Your task to perform on an android device: turn off improve location accuracy Image 0: 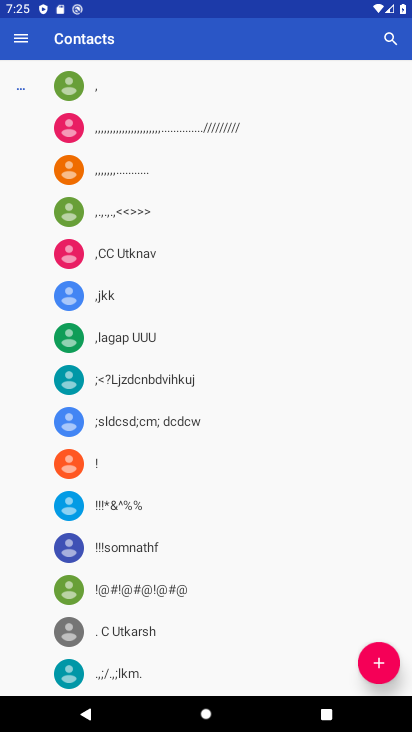
Step 0: press home button
Your task to perform on an android device: turn off improve location accuracy Image 1: 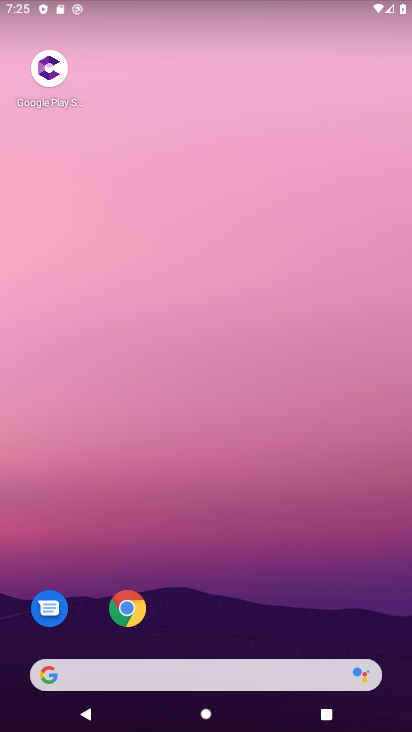
Step 1: drag from (247, 575) to (244, 58)
Your task to perform on an android device: turn off improve location accuracy Image 2: 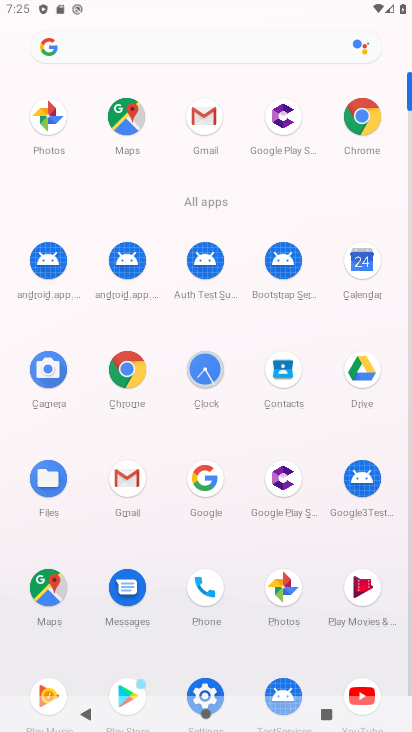
Step 2: drag from (240, 622) to (250, 485)
Your task to perform on an android device: turn off improve location accuracy Image 3: 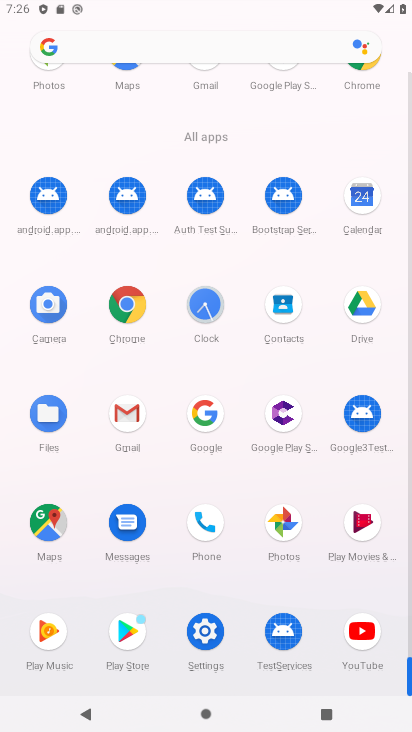
Step 3: click (214, 634)
Your task to perform on an android device: turn off improve location accuracy Image 4: 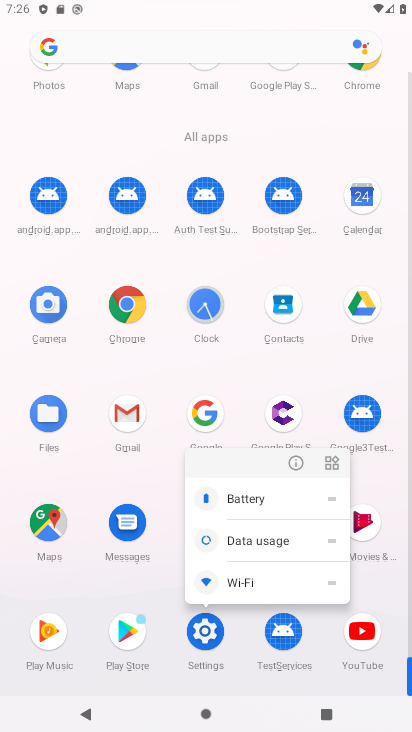
Step 4: click (214, 634)
Your task to perform on an android device: turn off improve location accuracy Image 5: 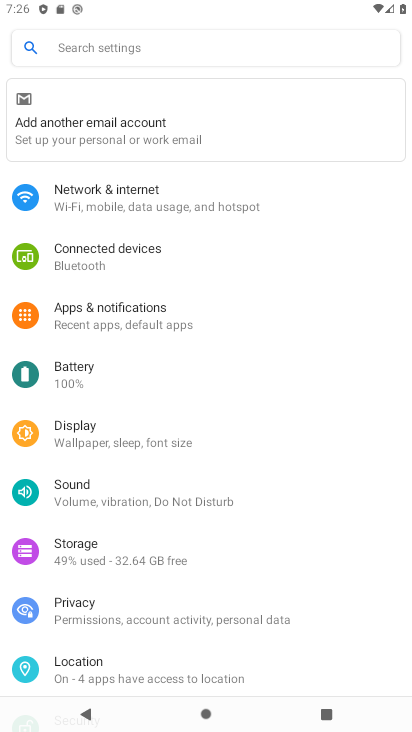
Step 5: click (170, 670)
Your task to perform on an android device: turn off improve location accuracy Image 6: 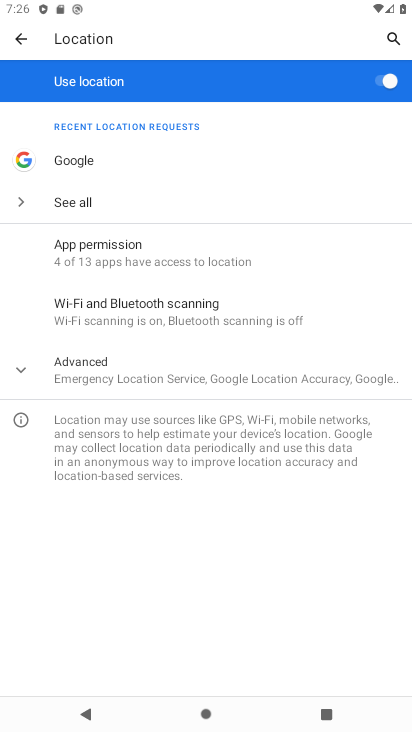
Step 6: click (118, 243)
Your task to perform on an android device: turn off improve location accuracy Image 7: 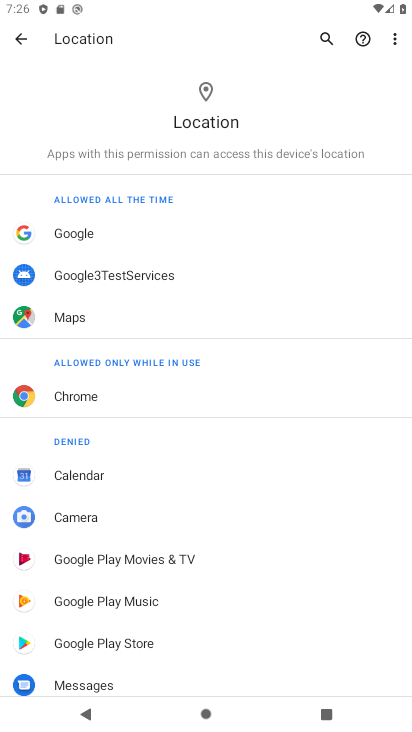
Step 7: drag from (220, 610) to (252, 156)
Your task to perform on an android device: turn off improve location accuracy Image 8: 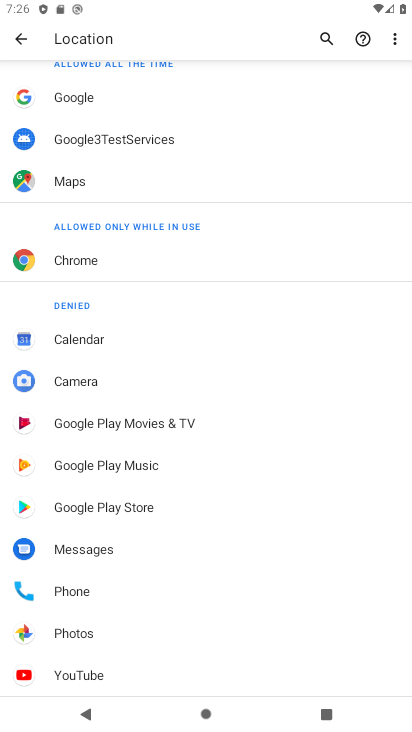
Step 8: click (19, 35)
Your task to perform on an android device: turn off improve location accuracy Image 9: 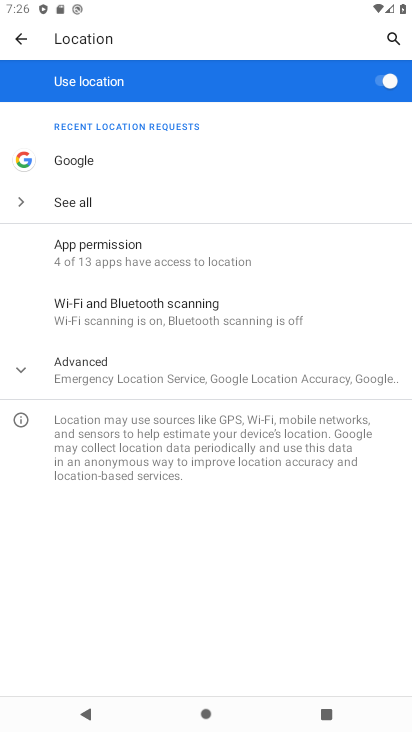
Step 9: click (23, 368)
Your task to perform on an android device: turn off improve location accuracy Image 10: 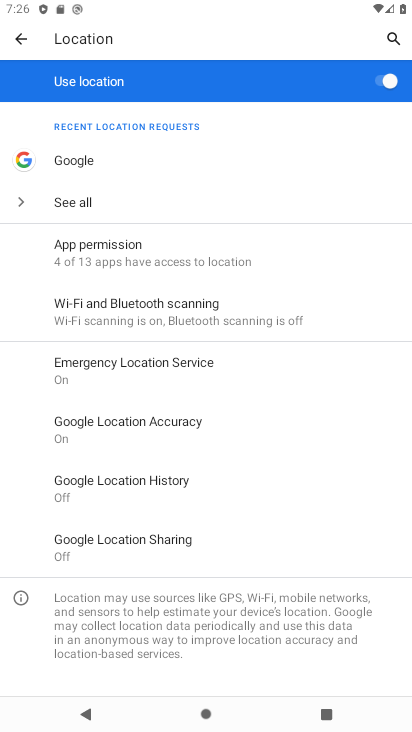
Step 10: click (97, 433)
Your task to perform on an android device: turn off improve location accuracy Image 11: 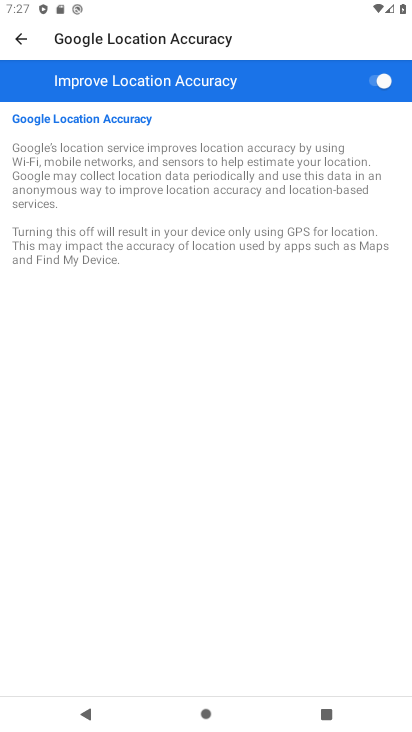
Step 11: click (380, 81)
Your task to perform on an android device: turn off improve location accuracy Image 12: 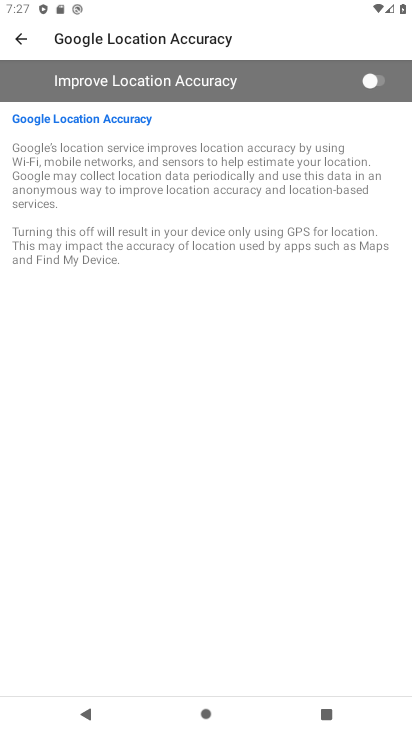
Step 12: task complete